Your task to perform on an android device: Go to location settings Image 0: 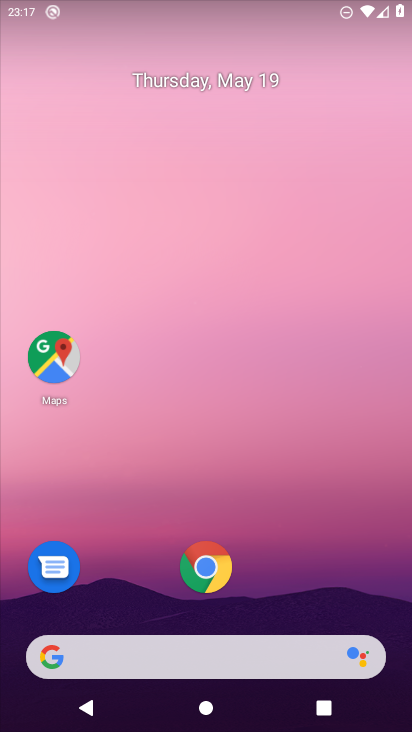
Step 0: drag from (178, 614) to (256, 148)
Your task to perform on an android device: Go to location settings Image 1: 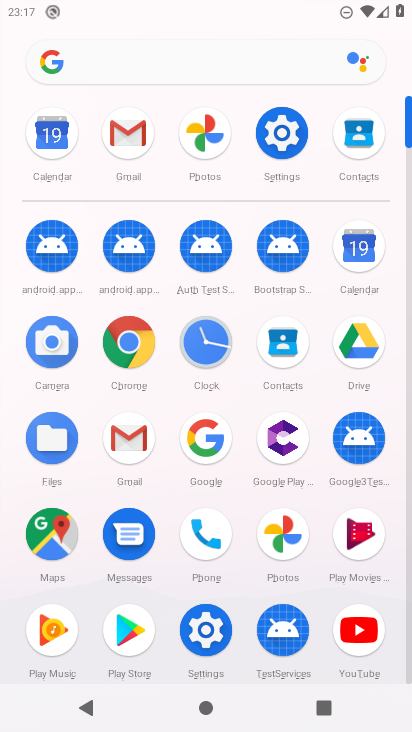
Step 1: click (207, 624)
Your task to perform on an android device: Go to location settings Image 2: 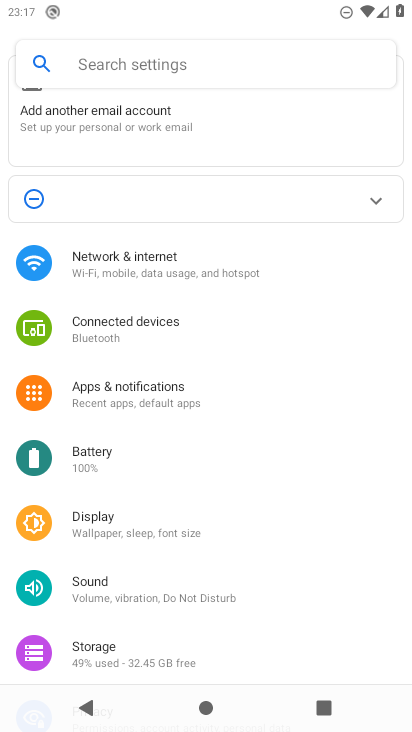
Step 2: drag from (165, 635) to (226, 194)
Your task to perform on an android device: Go to location settings Image 3: 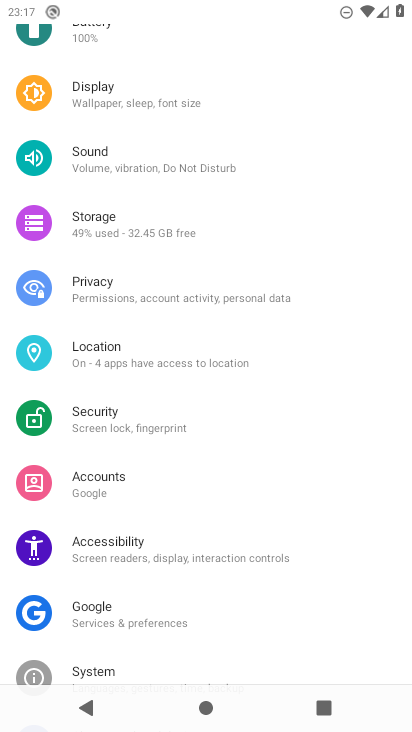
Step 3: click (147, 346)
Your task to perform on an android device: Go to location settings Image 4: 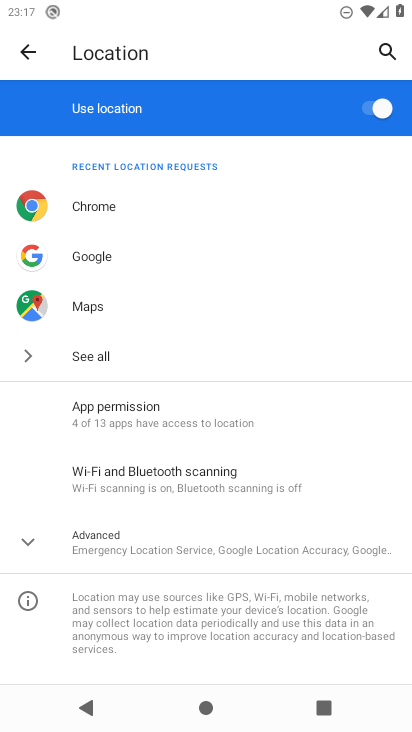
Step 4: click (32, 535)
Your task to perform on an android device: Go to location settings Image 5: 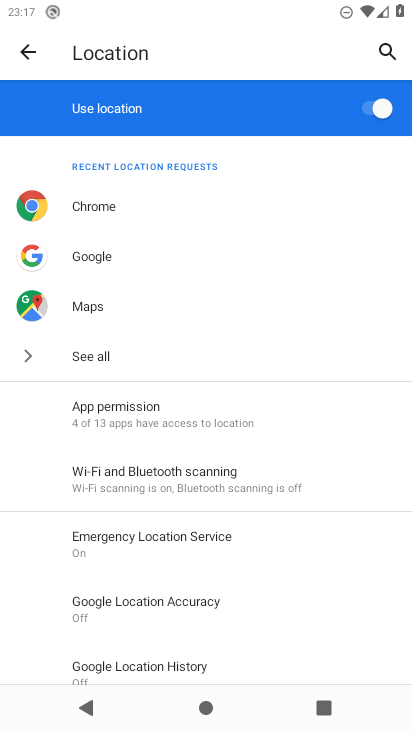
Step 5: task complete